Your task to perform on an android device: What's the weather going to be this weekend? Image 0: 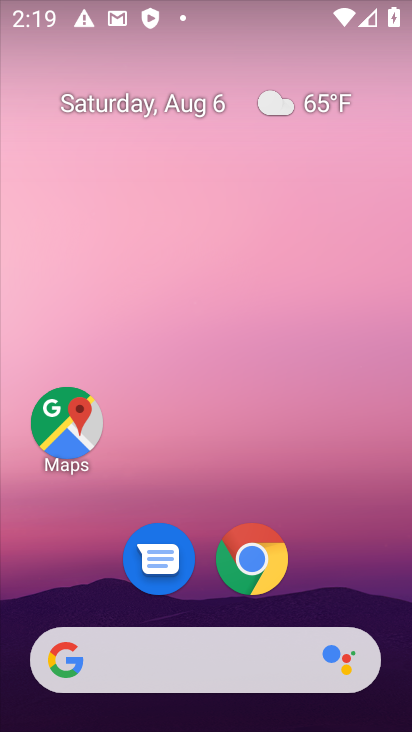
Step 0: drag from (218, 499) to (198, 140)
Your task to perform on an android device: What's the weather going to be this weekend? Image 1: 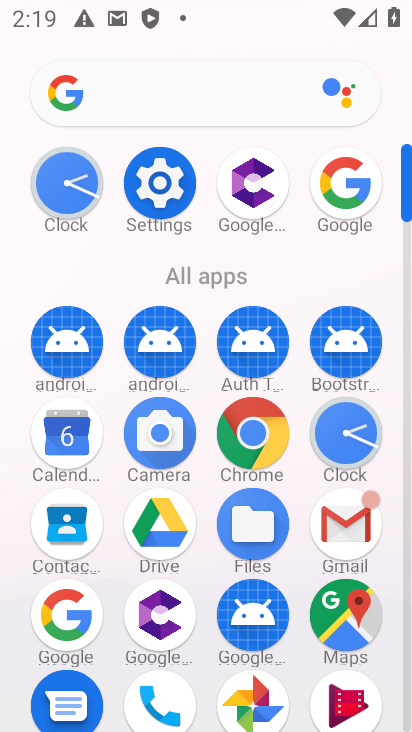
Step 1: click (75, 623)
Your task to perform on an android device: What's the weather going to be this weekend? Image 2: 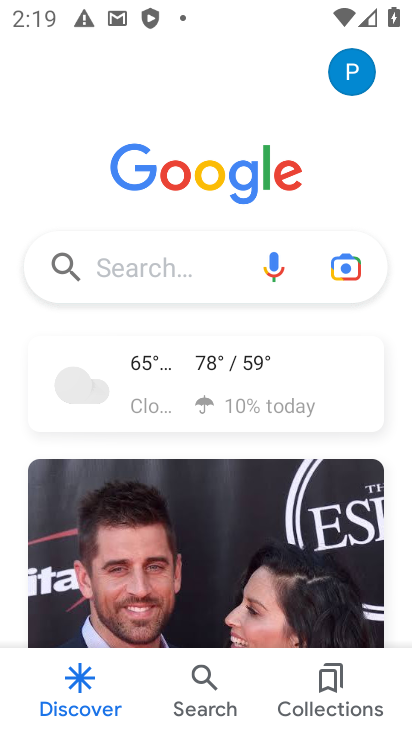
Step 2: click (130, 288)
Your task to perform on an android device: What's the weather going to be this weekend? Image 3: 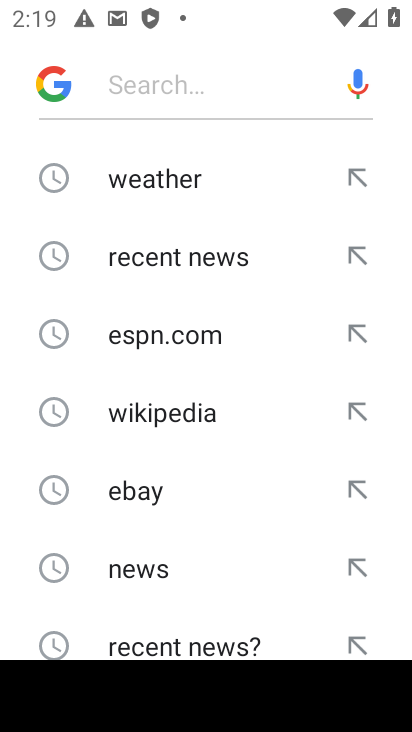
Step 3: click (161, 187)
Your task to perform on an android device: What's the weather going to be this weekend? Image 4: 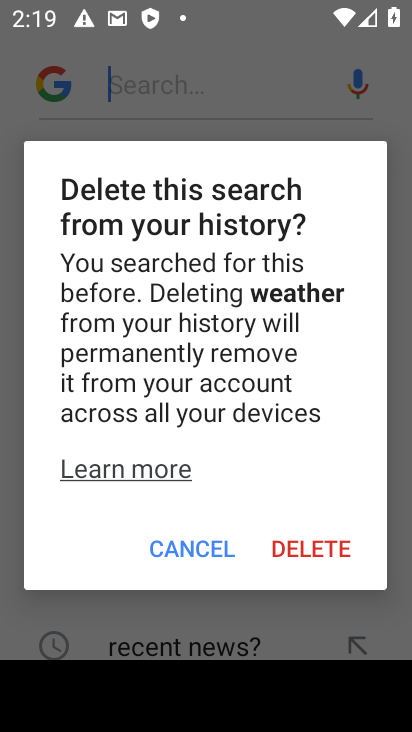
Step 4: click (212, 548)
Your task to perform on an android device: What's the weather going to be this weekend? Image 5: 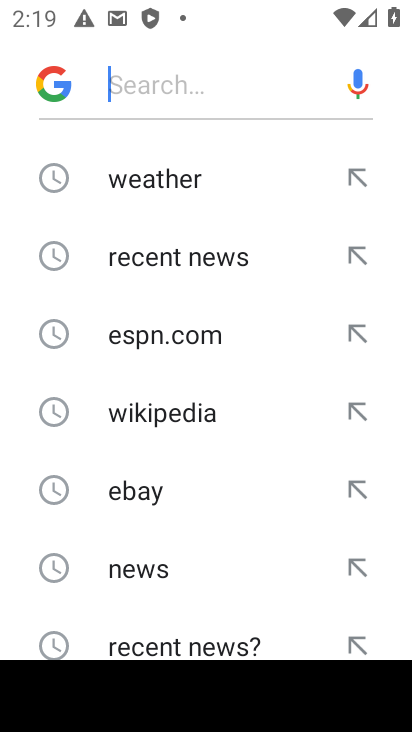
Step 5: click (175, 180)
Your task to perform on an android device: What's the weather going to be this weekend? Image 6: 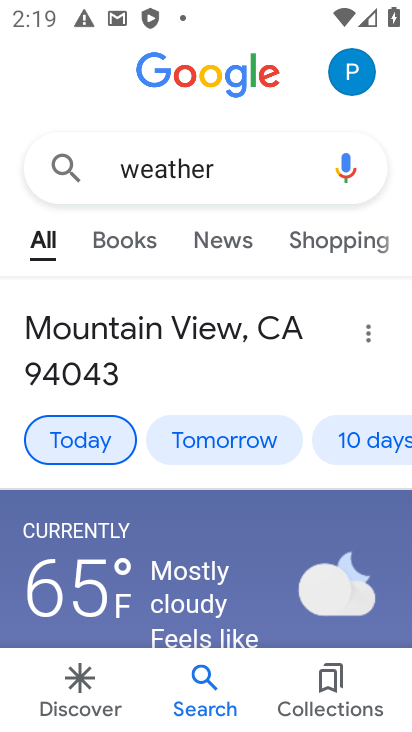
Step 6: click (343, 435)
Your task to perform on an android device: What's the weather going to be this weekend? Image 7: 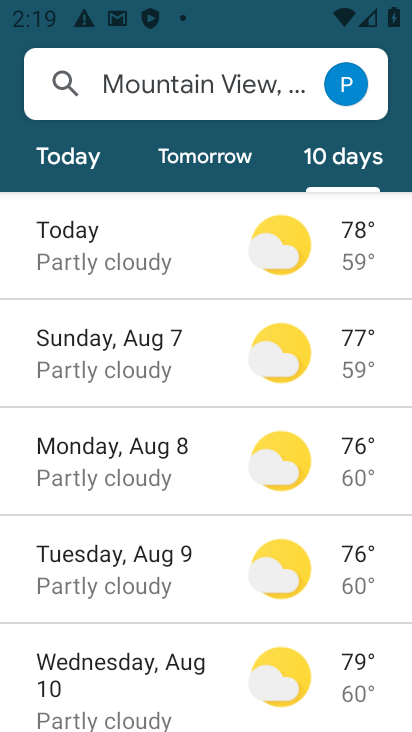
Step 7: task complete